Your task to perform on an android device: find photos in the google photos app Image 0: 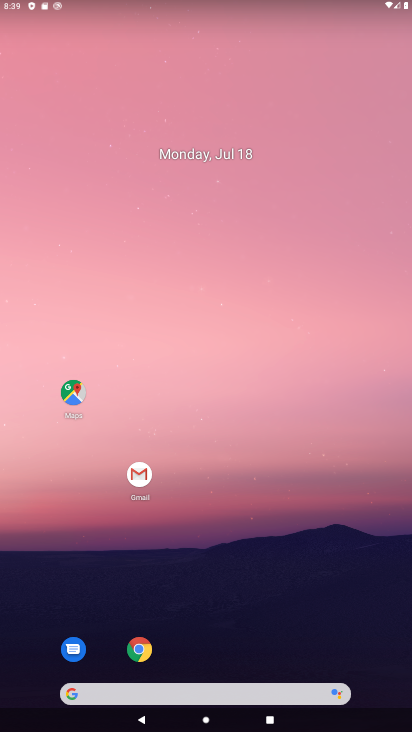
Step 0: drag from (224, 526) to (252, 124)
Your task to perform on an android device: find photos in the google photos app Image 1: 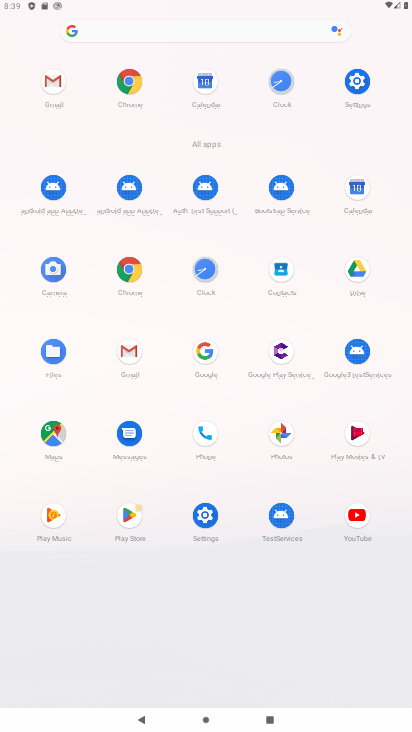
Step 1: click (274, 436)
Your task to perform on an android device: find photos in the google photos app Image 2: 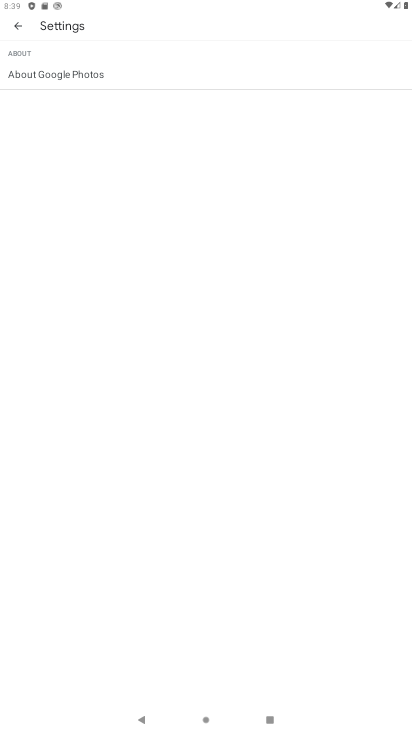
Step 2: click (17, 26)
Your task to perform on an android device: find photos in the google photos app Image 3: 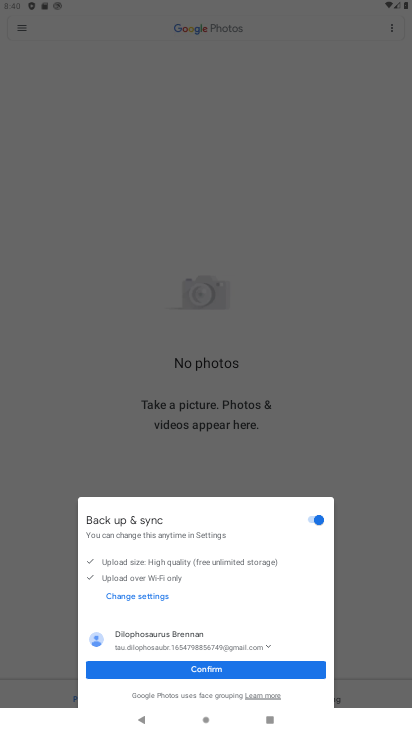
Step 3: task complete